Your task to perform on an android device: Go to eBay Image 0: 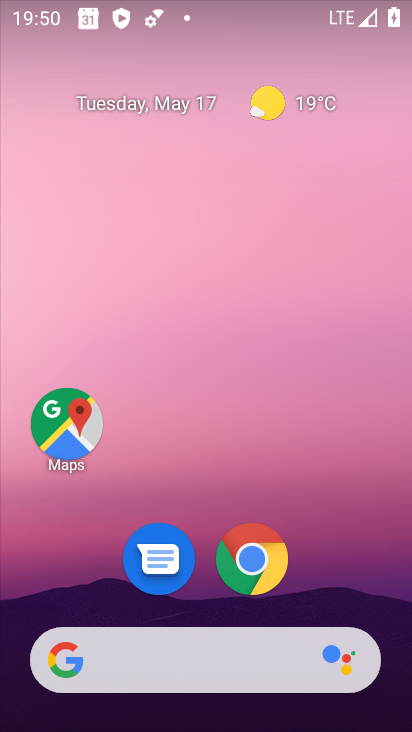
Step 0: drag from (200, 494) to (378, 409)
Your task to perform on an android device: Go to eBay Image 1: 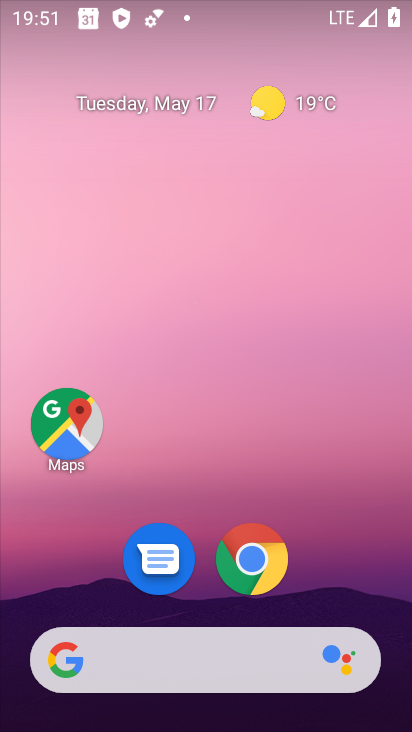
Step 1: drag from (204, 593) to (200, 77)
Your task to perform on an android device: Go to eBay Image 2: 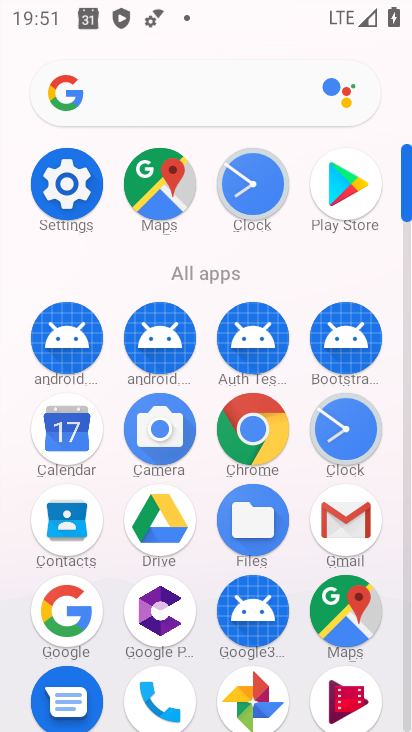
Step 2: click (189, 110)
Your task to perform on an android device: Go to eBay Image 3: 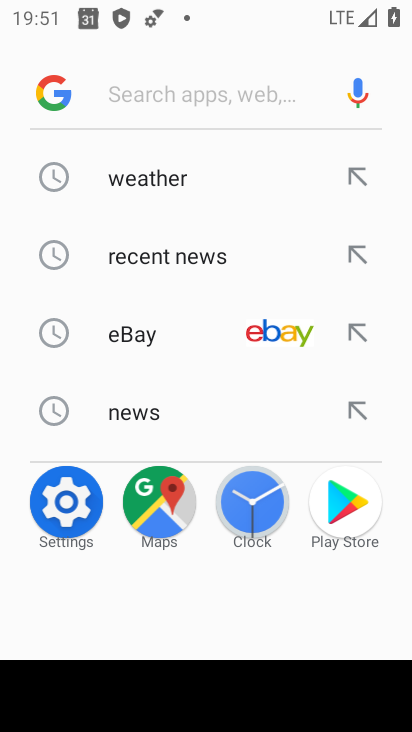
Step 3: click (154, 329)
Your task to perform on an android device: Go to eBay Image 4: 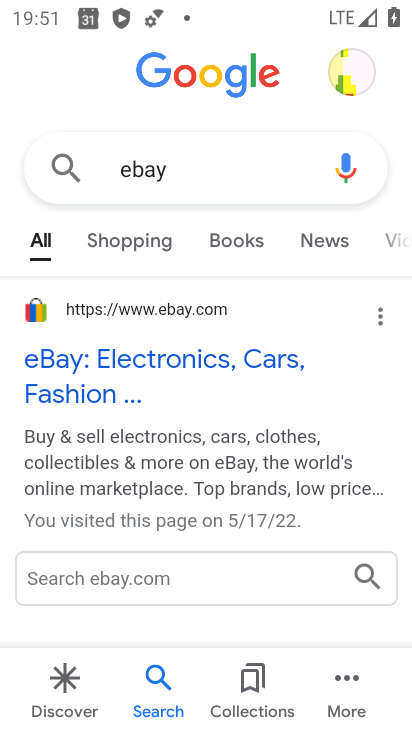
Step 4: click (125, 371)
Your task to perform on an android device: Go to eBay Image 5: 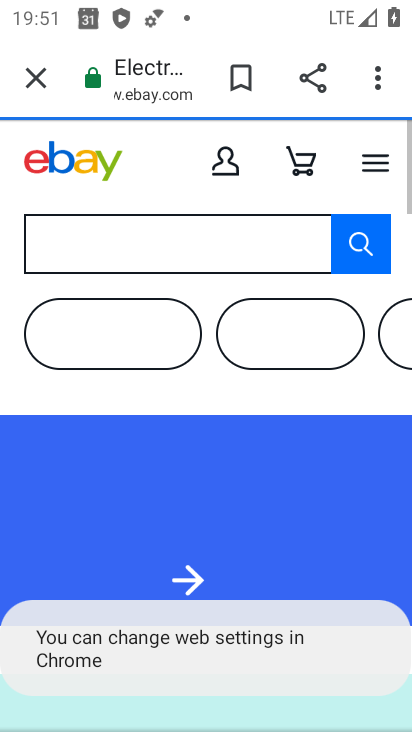
Step 5: task complete